Your task to perform on an android device: Open Youtube and go to the subscriptions tab Image 0: 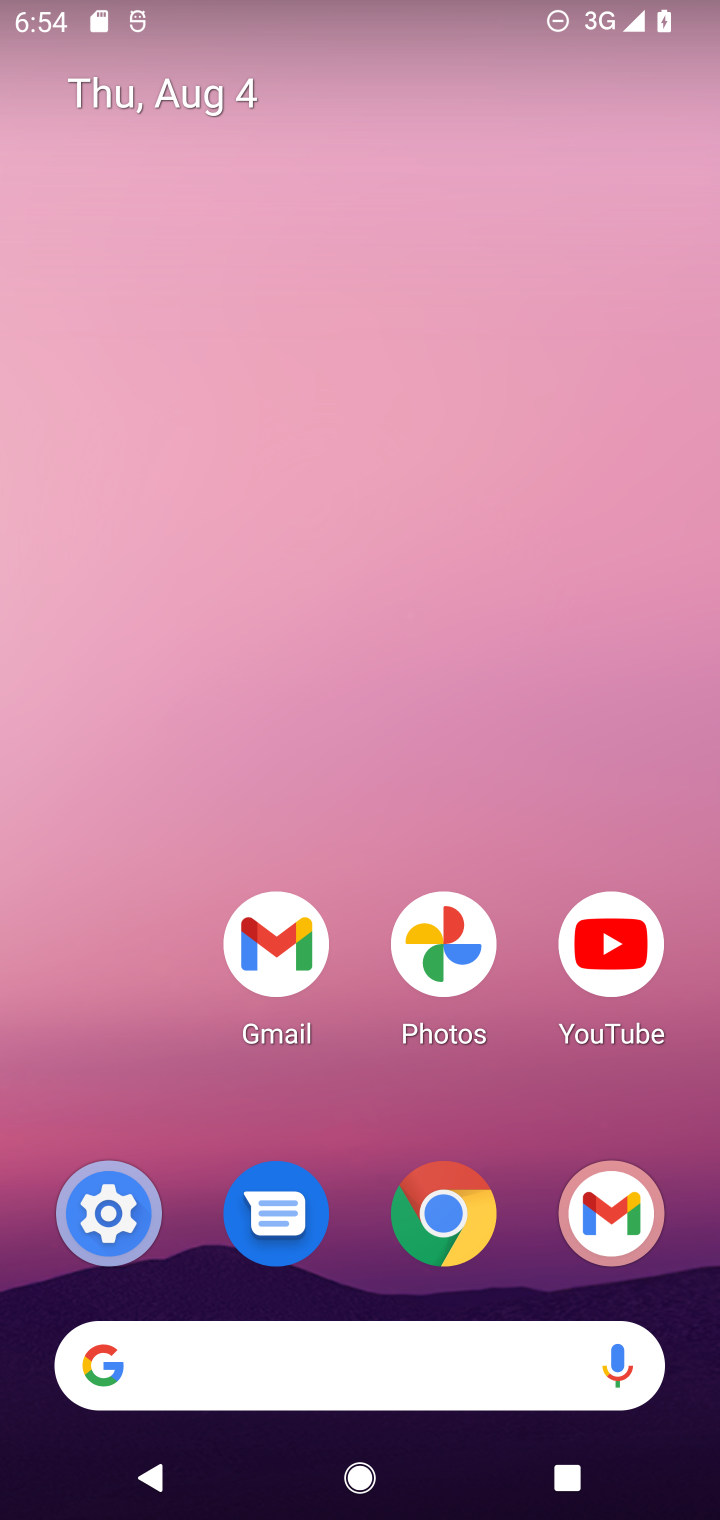
Step 0: press home button
Your task to perform on an android device: Open Youtube and go to the subscriptions tab Image 1: 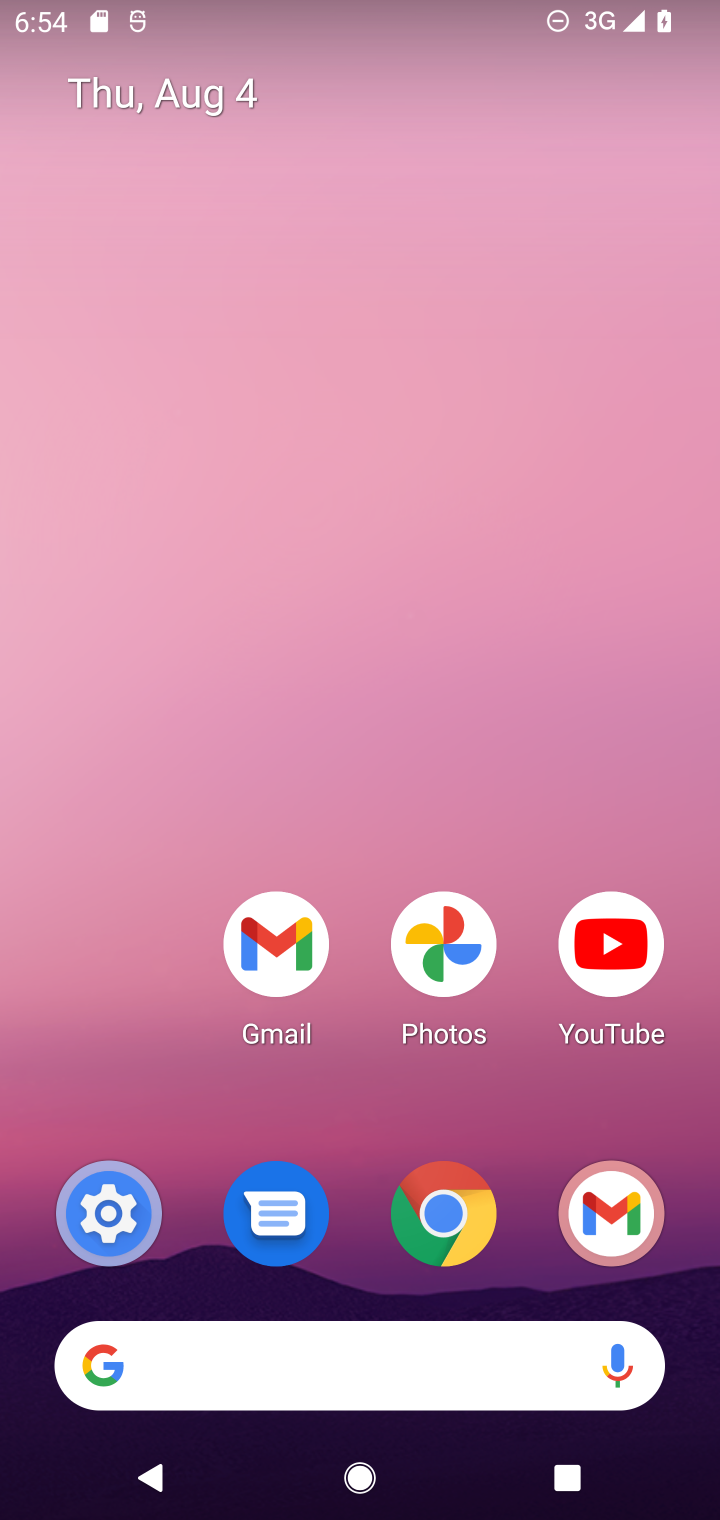
Step 1: drag from (148, 1090) to (71, 318)
Your task to perform on an android device: Open Youtube and go to the subscriptions tab Image 2: 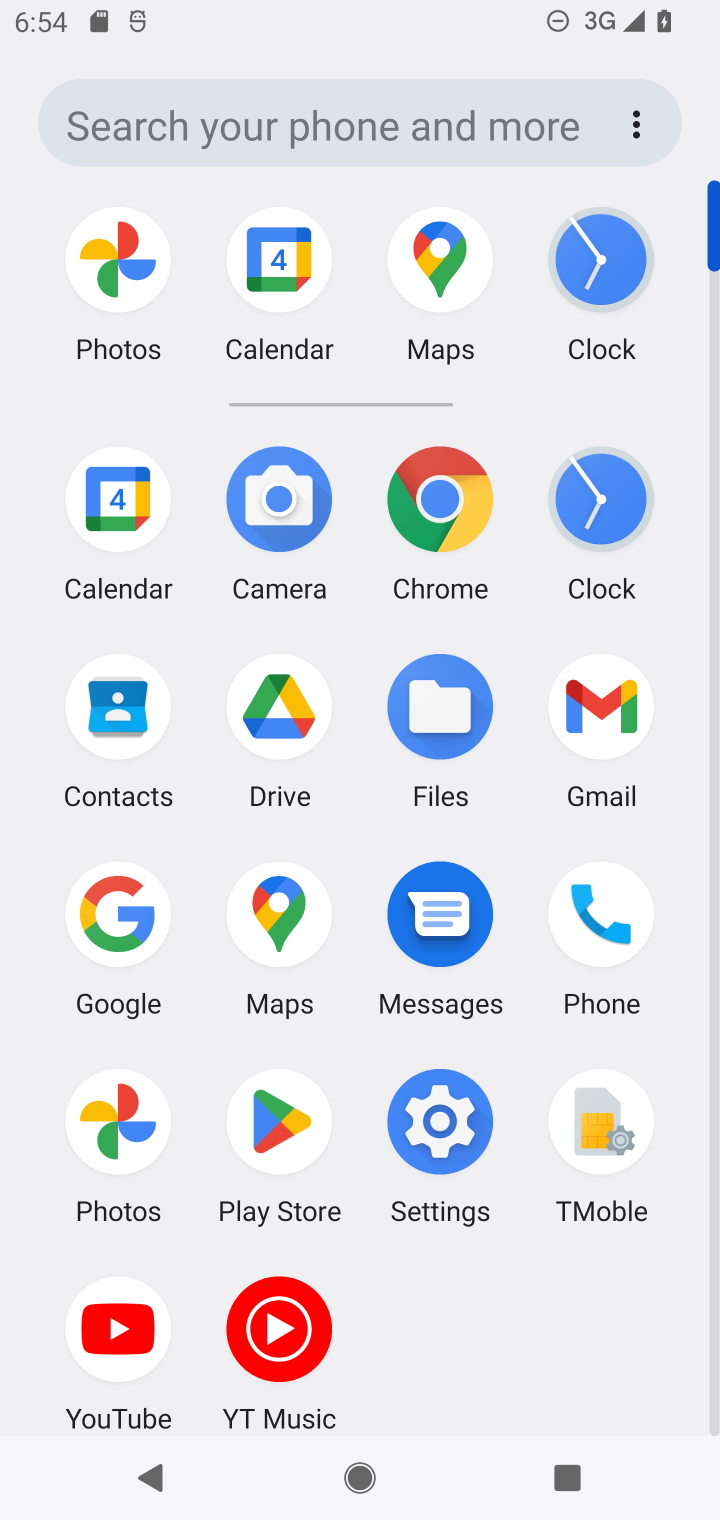
Step 2: click (116, 1340)
Your task to perform on an android device: Open Youtube and go to the subscriptions tab Image 3: 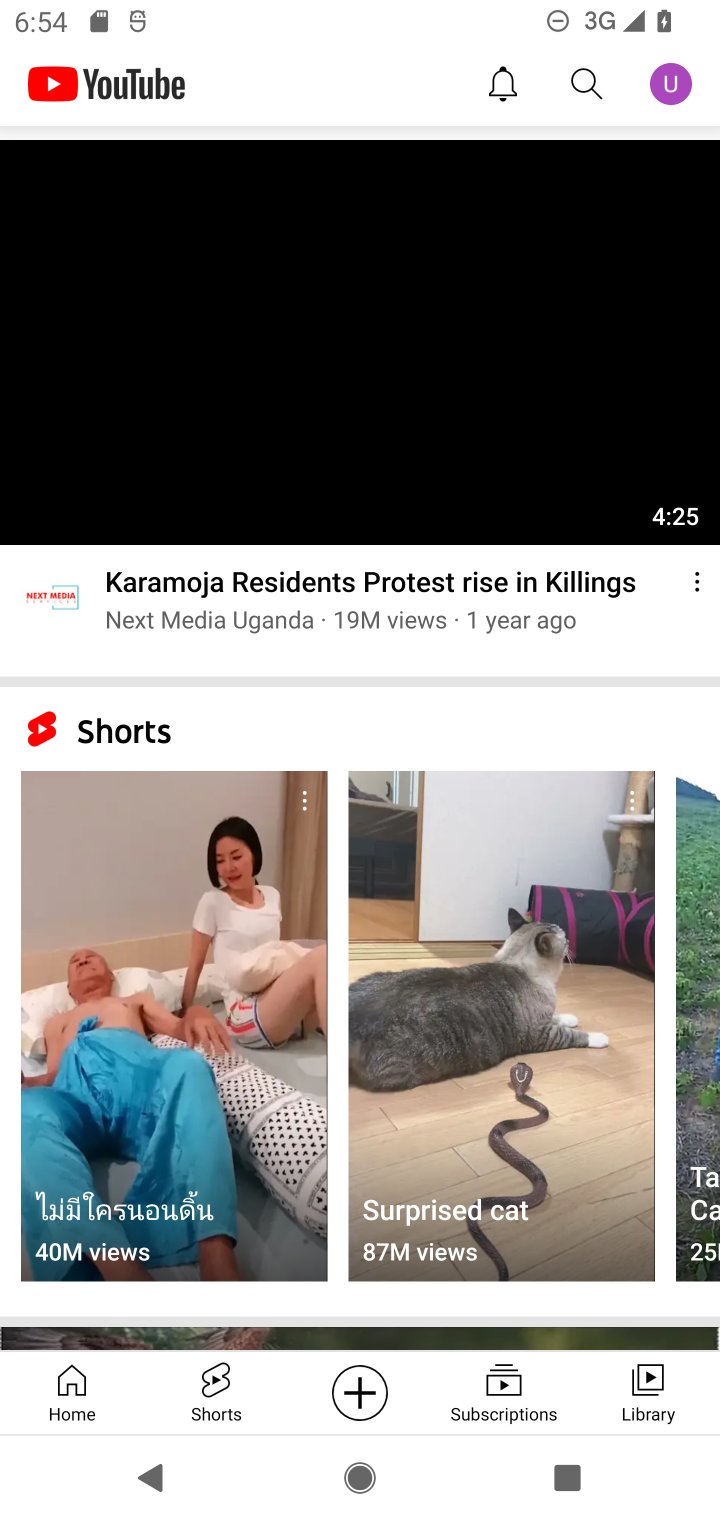
Step 3: click (499, 1394)
Your task to perform on an android device: Open Youtube and go to the subscriptions tab Image 4: 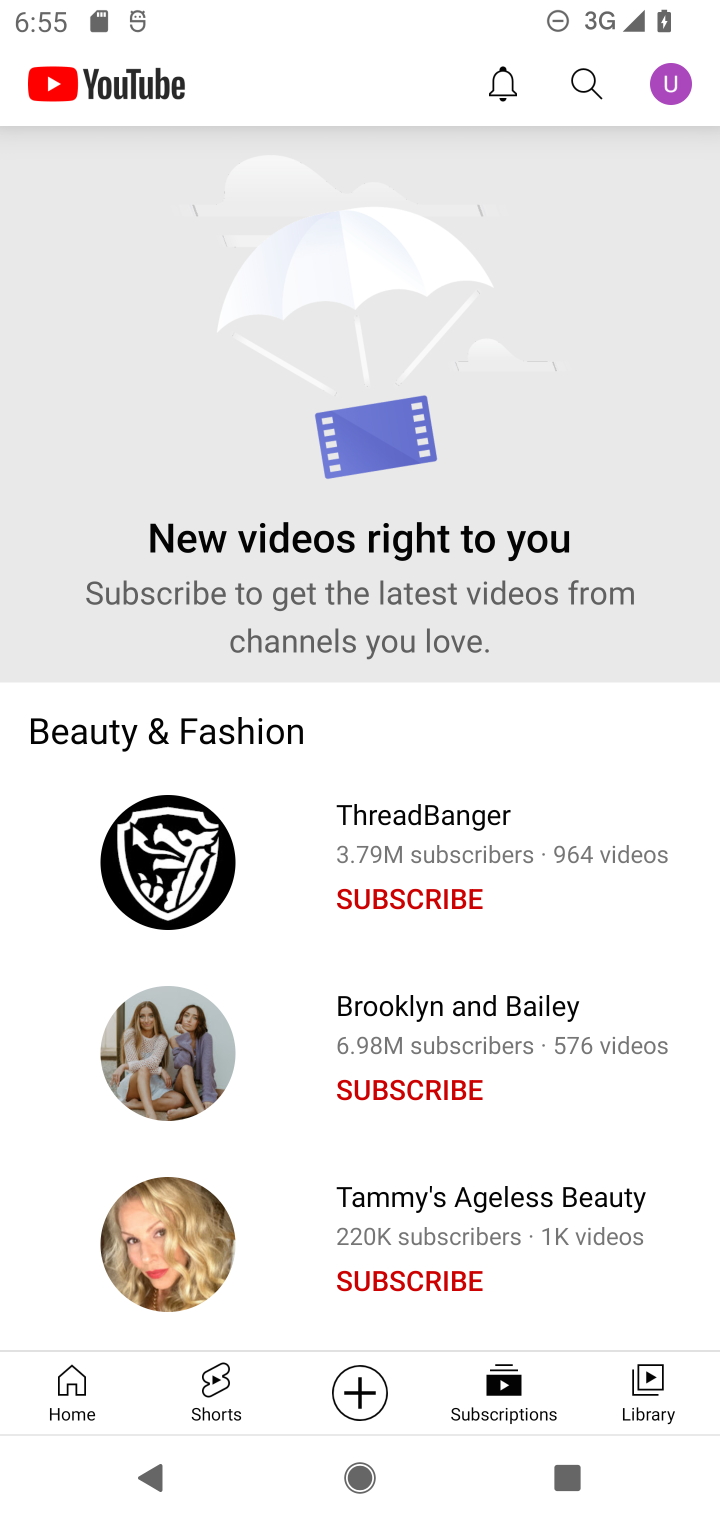
Step 4: task complete